Your task to perform on an android device: Open calendar and show me the second week of next month Image 0: 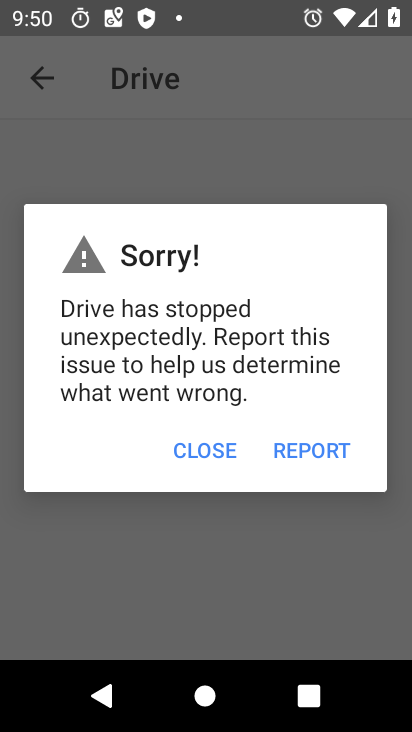
Step 0: press home button
Your task to perform on an android device: Open calendar and show me the second week of next month Image 1: 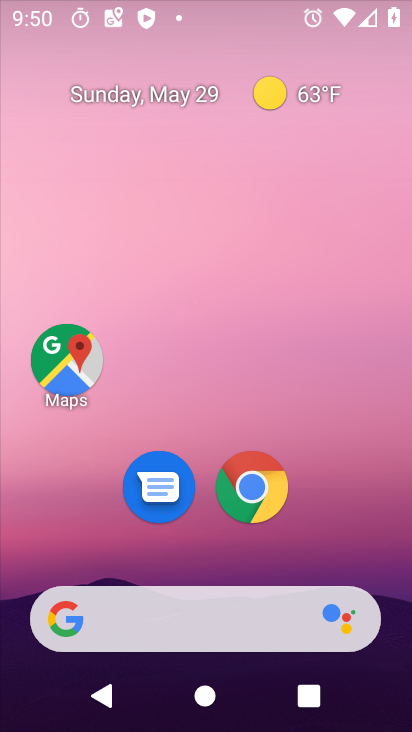
Step 1: drag from (236, 628) to (401, 8)
Your task to perform on an android device: Open calendar and show me the second week of next month Image 2: 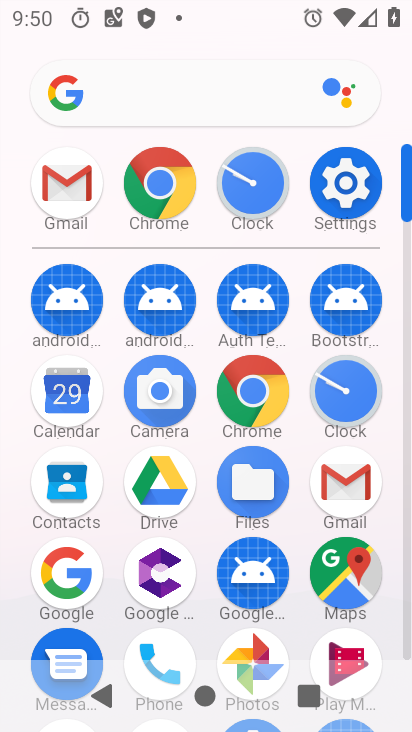
Step 2: click (82, 413)
Your task to perform on an android device: Open calendar and show me the second week of next month Image 3: 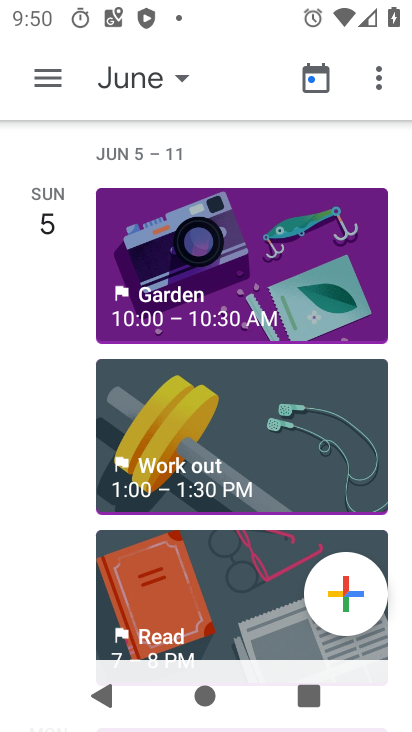
Step 3: click (187, 74)
Your task to perform on an android device: Open calendar and show me the second week of next month Image 4: 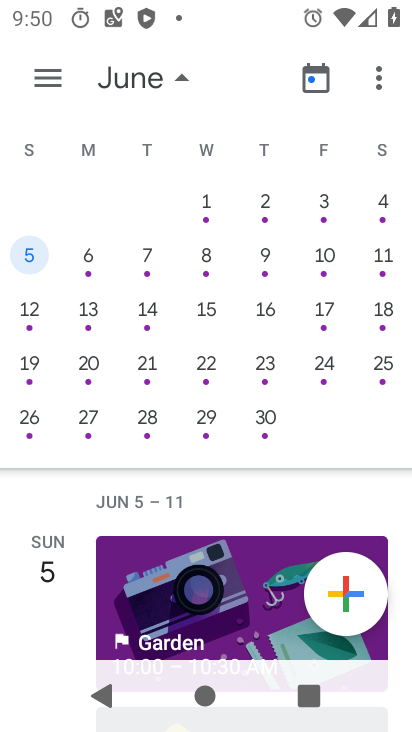
Step 4: task complete